Your task to perform on an android device: check data usage Image 0: 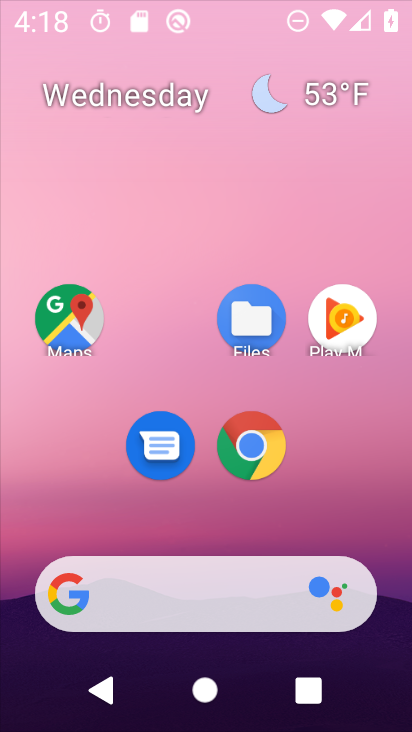
Step 0: drag from (318, 476) to (256, 60)
Your task to perform on an android device: check data usage Image 1: 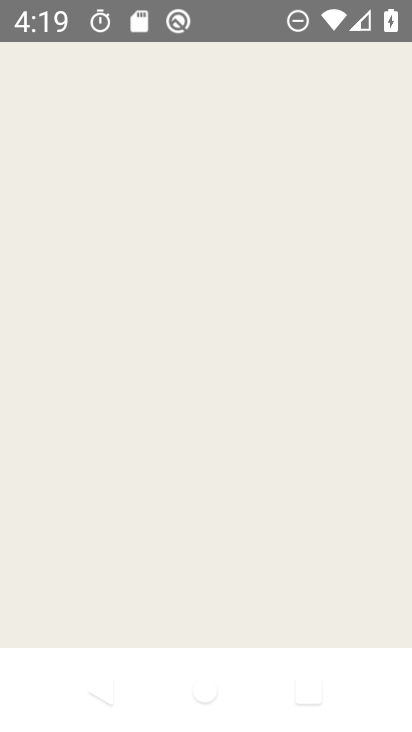
Step 1: press home button
Your task to perform on an android device: check data usage Image 2: 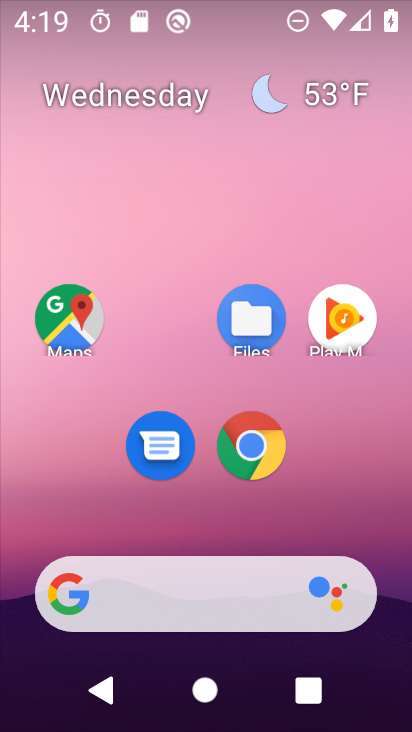
Step 2: drag from (333, 491) to (300, 80)
Your task to perform on an android device: check data usage Image 3: 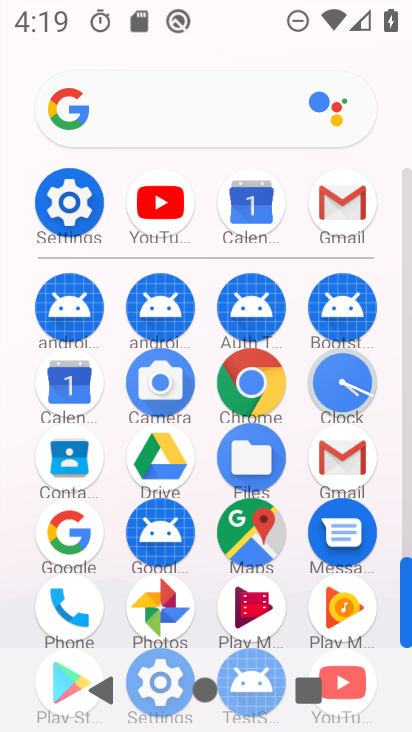
Step 3: click (79, 206)
Your task to perform on an android device: check data usage Image 4: 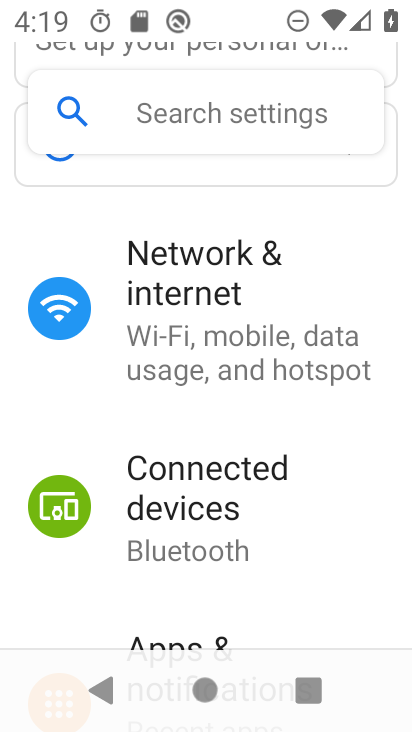
Step 4: click (271, 272)
Your task to perform on an android device: check data usage Image 5: 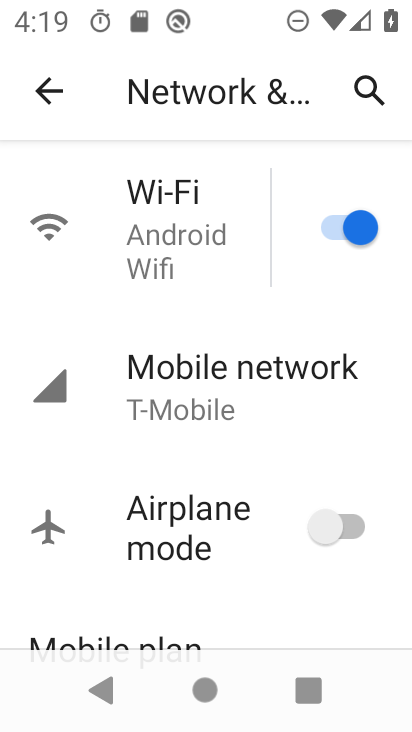
Step 5: click (187, 398)
Your task to perform on an android device: check data usage Image 6: 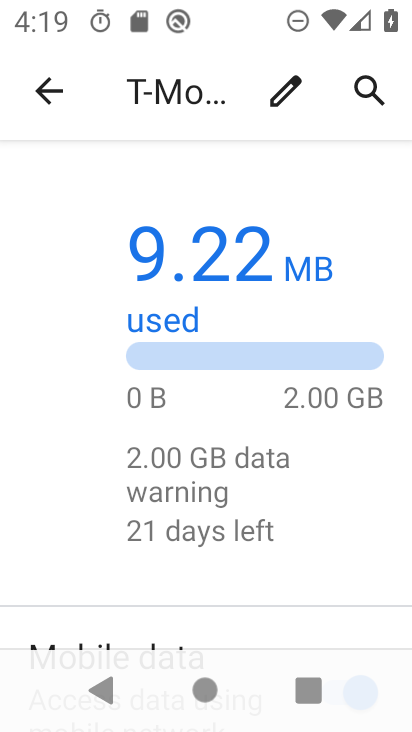
Step 6: task complete